Your task to perform on an android device: Go to privacy settings Image 0: 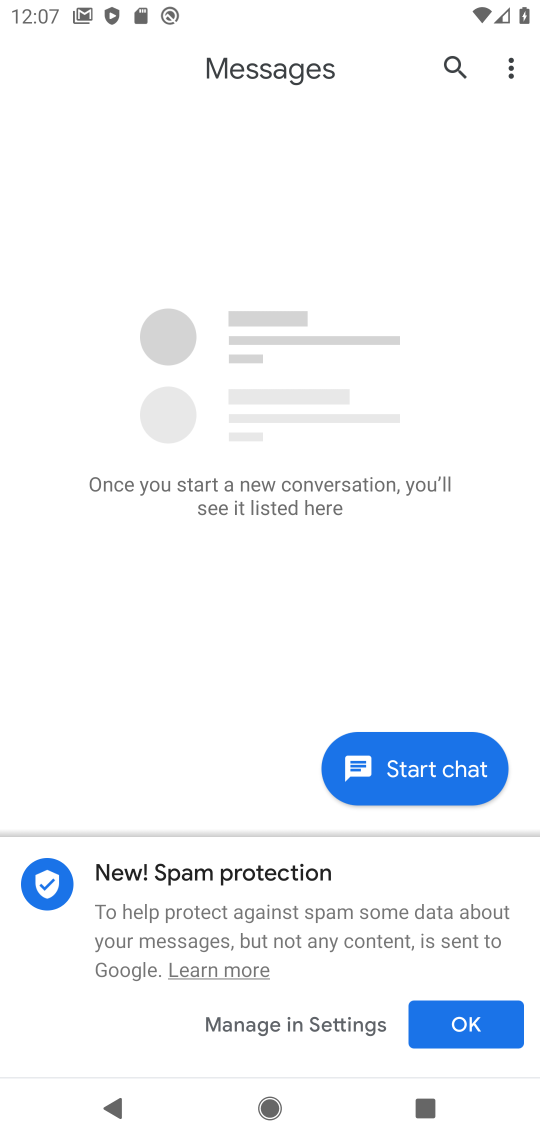
Step 0: press home button
Your task to perform on an android device: Go to privacy settings Image 1: 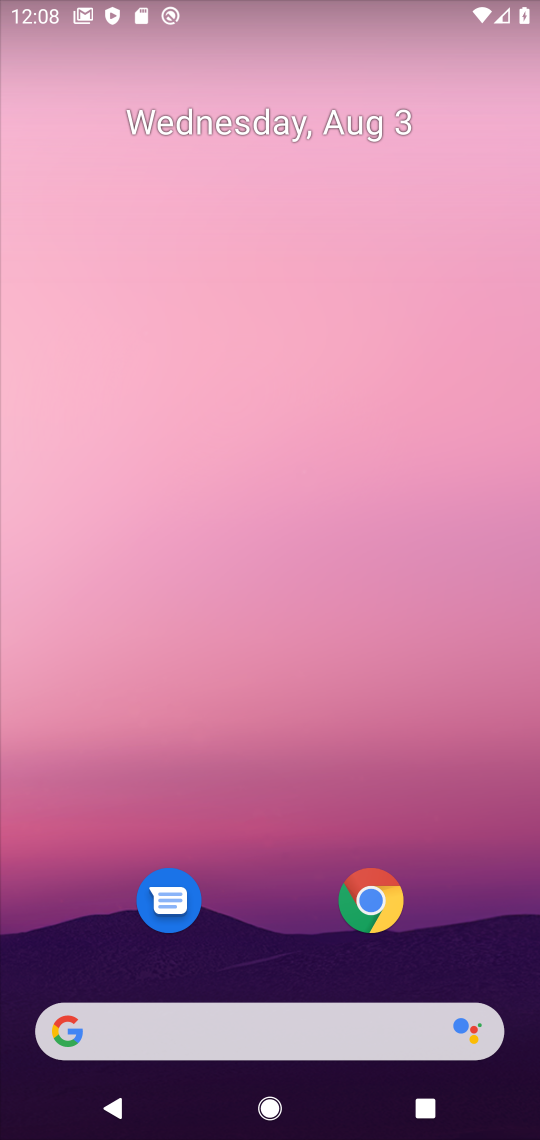
Step 1: drag from (254, 991) to (273, 20)
Your task to perform on an android device: Go to privacy settings Image 2: 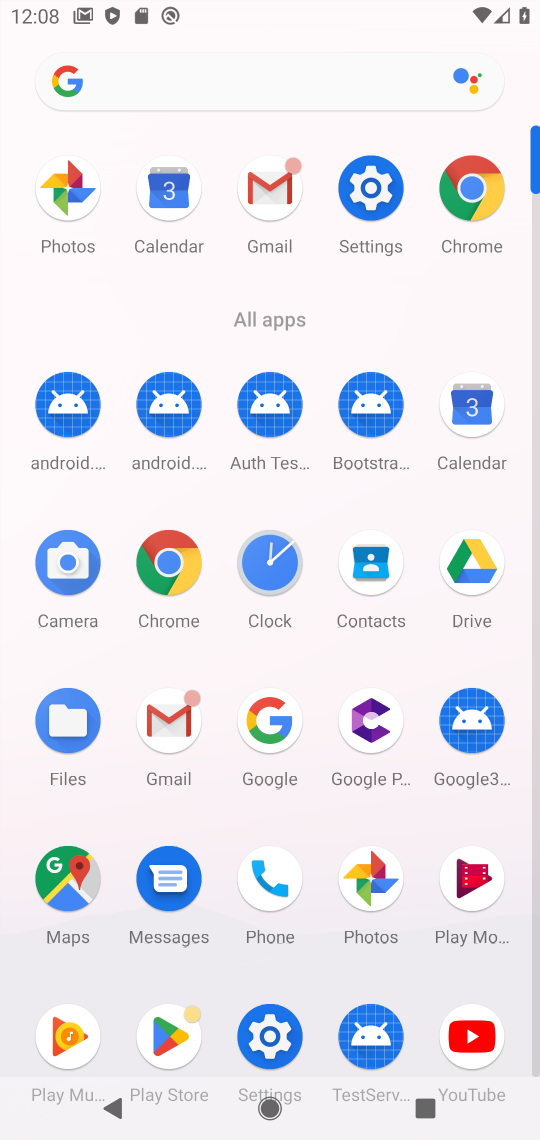
Step 2: click (384, 178)
Your task to perform on an android device: Go to privacy settings Image 3: 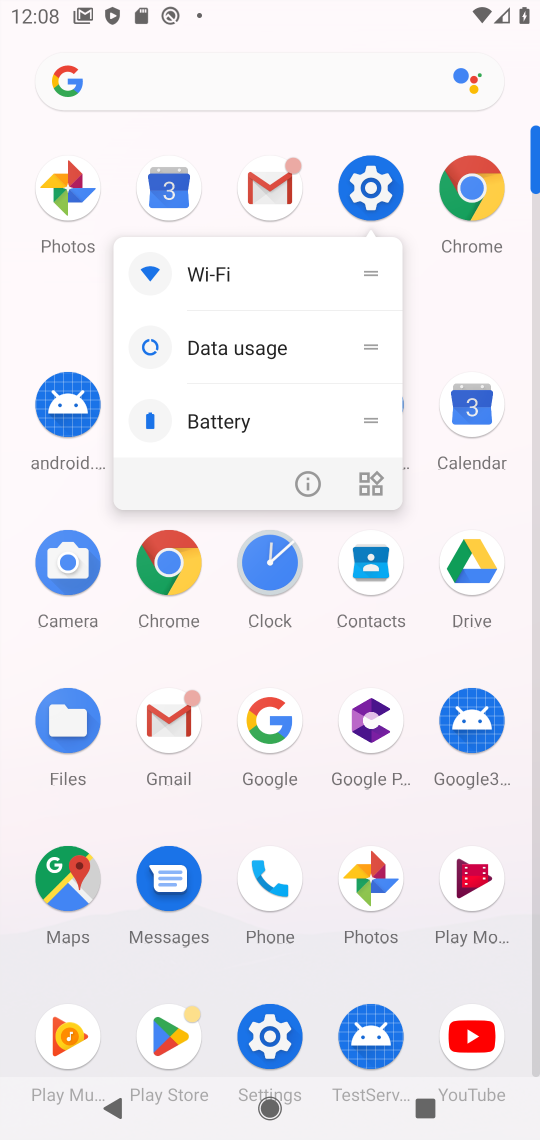
Step 3: click (251, 1036)
Your task to perform on an android device: Go to privacy settings Image 4: 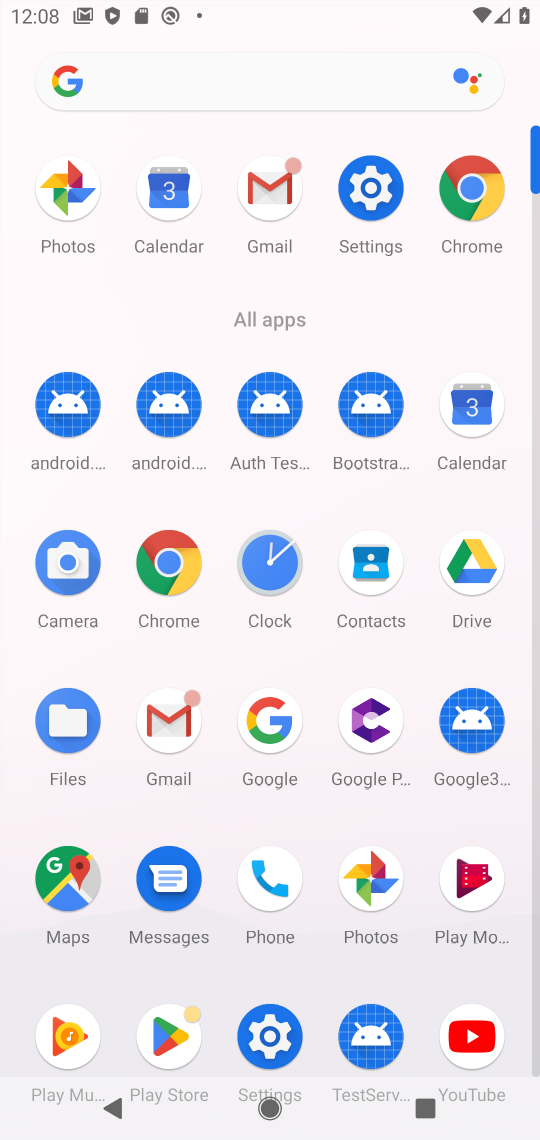
Step 4: click (277, 1033)
Your task to perform on an android device: Go to privacy settings Image 5: 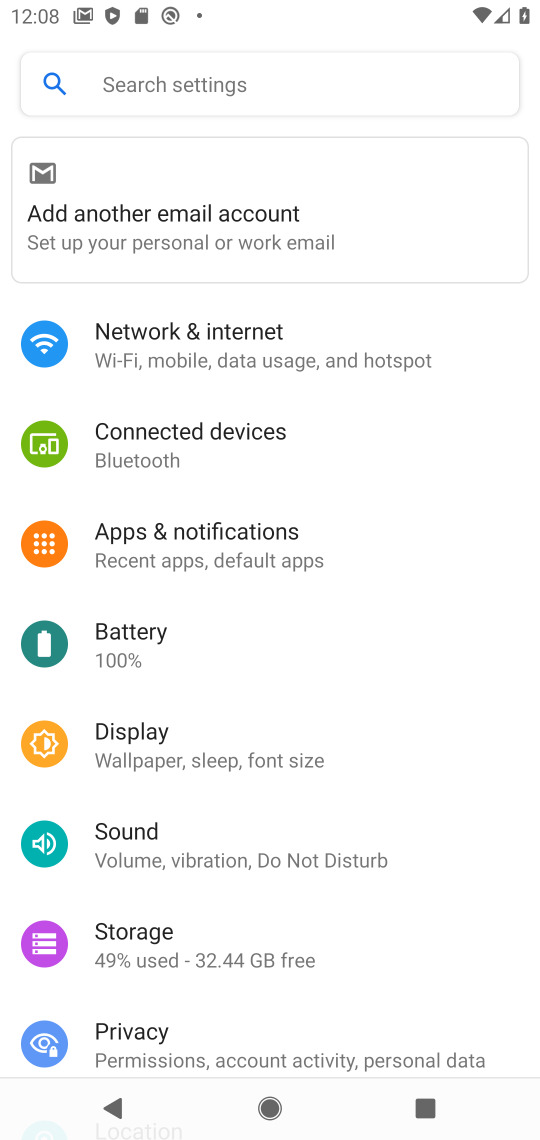
Step 5: click (218, 1049)
Your task to perform on an android device: Go to privacy settings Image 6: 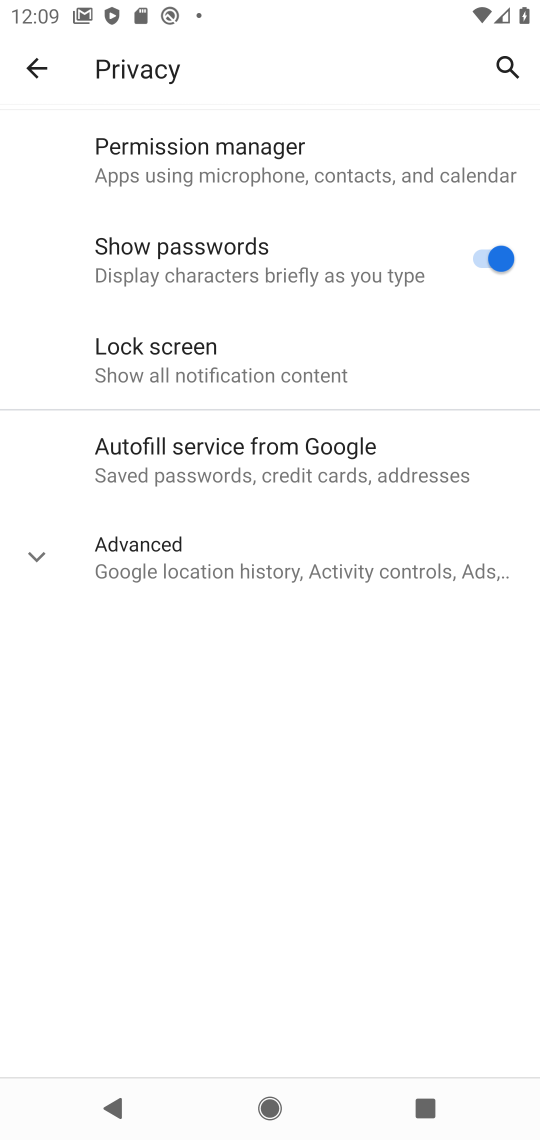
Step 6: task complete